Your task to perform on an android device: Go to ESPN.com Image 0: 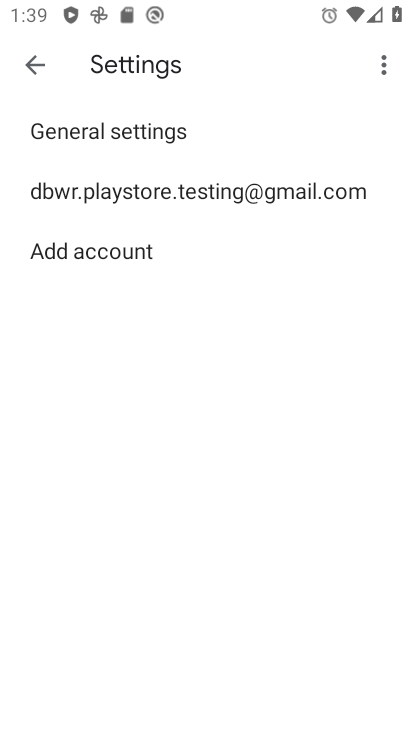
Step 0: press home button
Your task to perform on an android device: Go to ESPN.com Image 1: 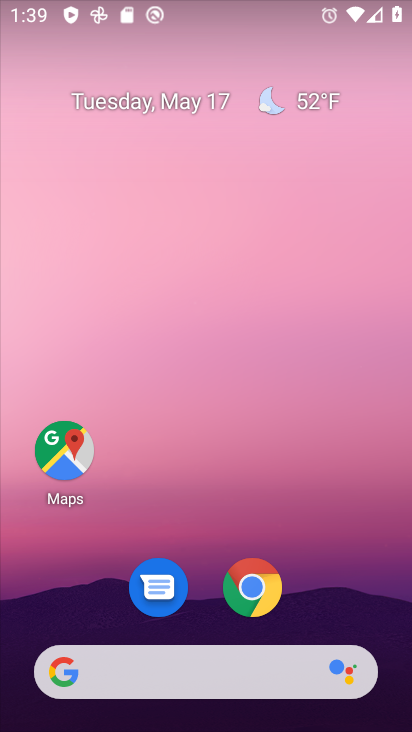
Step 1: click (261, 573)
Your task to perform on an android device: Go to ESPN.com Image 2: 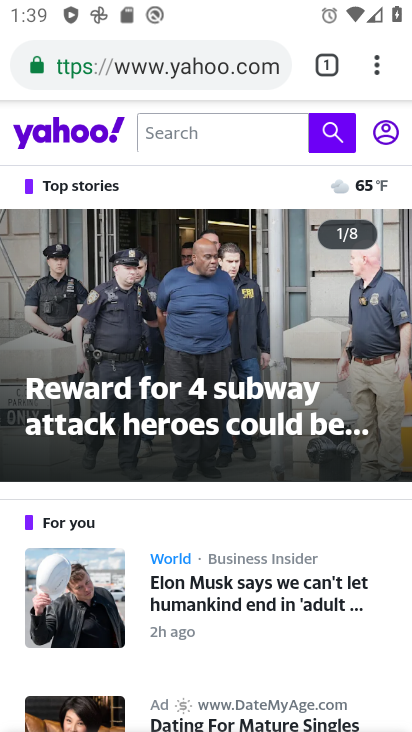
Step 2: click (160, 83)
Your task to perform on an android device: Go to ESPN.com Image 3: 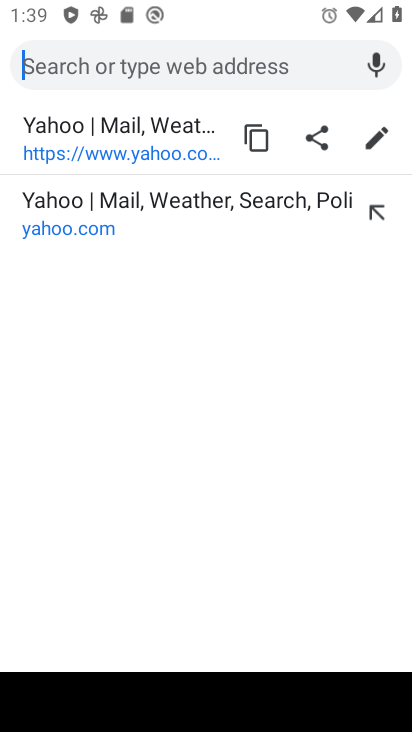
Step 3: type "espn"
Your task to perform on an android device: Go to ESPN.com Image 4: 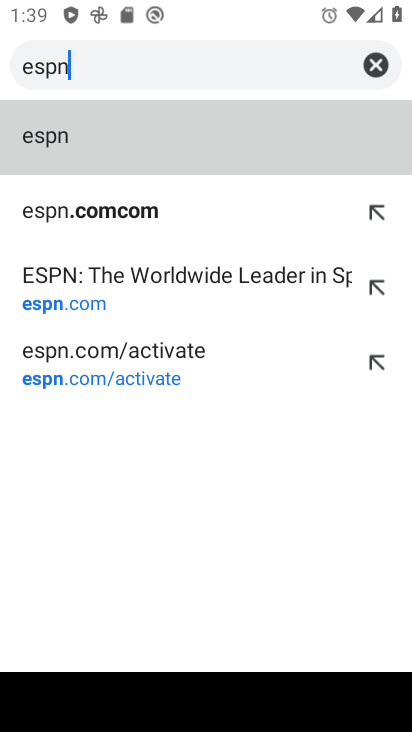
Step 4: click (218, 272)
Your task to perform on an android device: Go to ESPN.com Image 5: 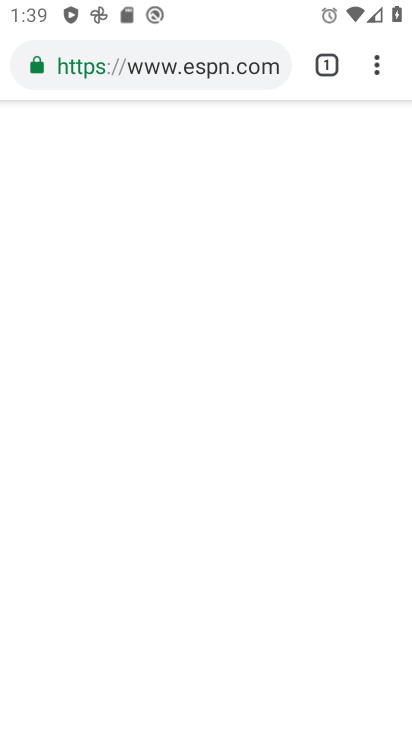
Step 5: task complete